Your task to perform on an android device: Go to CNN.com Image 0: 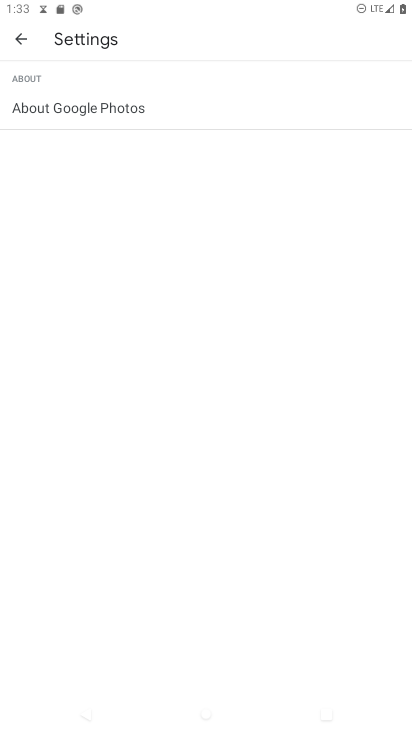
Step 0: press home button
Your task to perform on an android device: Go to CNN.com Image 1: 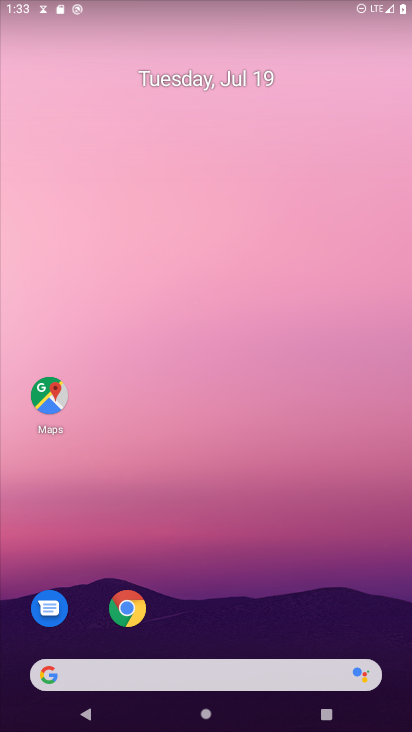
Step 1: drag from (214, 673) to (358, 4)
Your task to perform on an android device: Go to CNN.com Image 2: 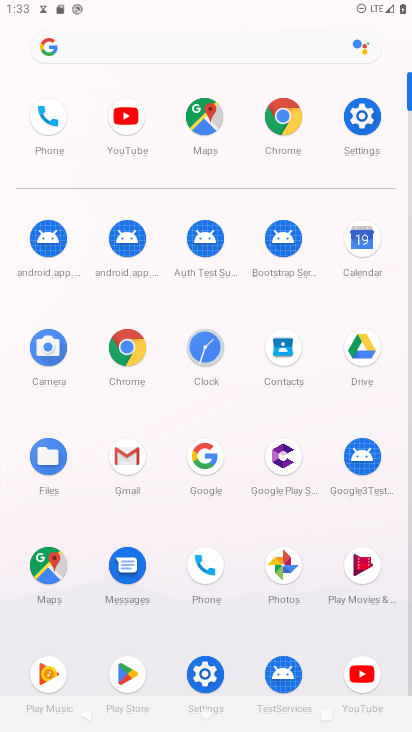
Step 2: click (134, 349)
Your task to perform on an android device: Go to CNN.com Image 3: 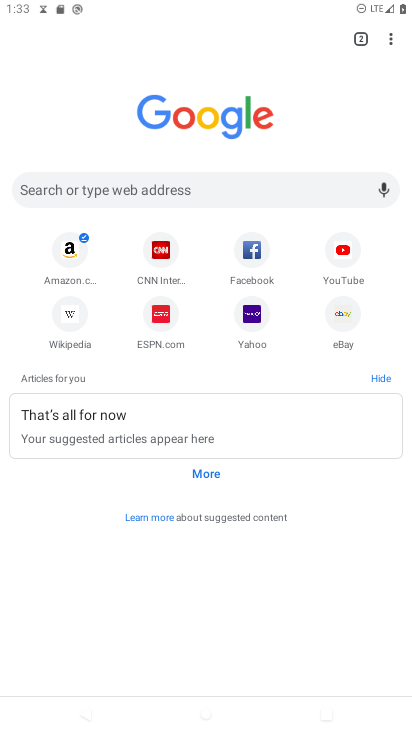
Step 3: click (158, 252)
Your task to perform on an android device: Go to CNN.com Image 4: 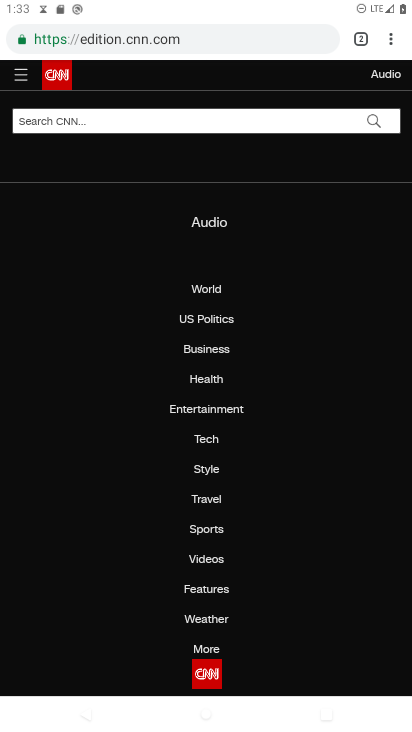
Step 4: task complete